Your task to perform on an android device: uninstall "Google Maps" Image 0: 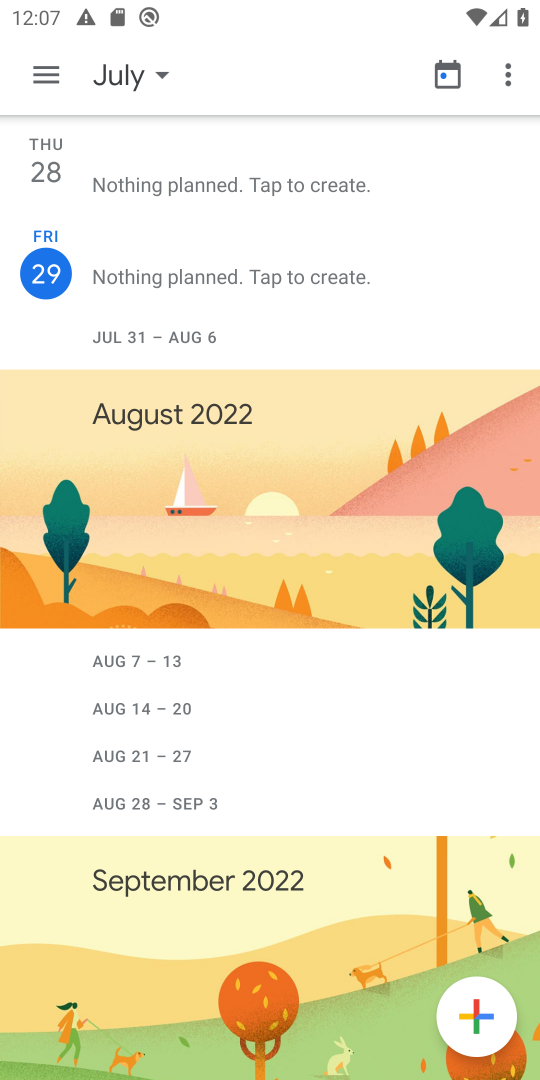
Step 0: press home button
Your task to perform on an android device: uninstall "Google Maps" Image 1: 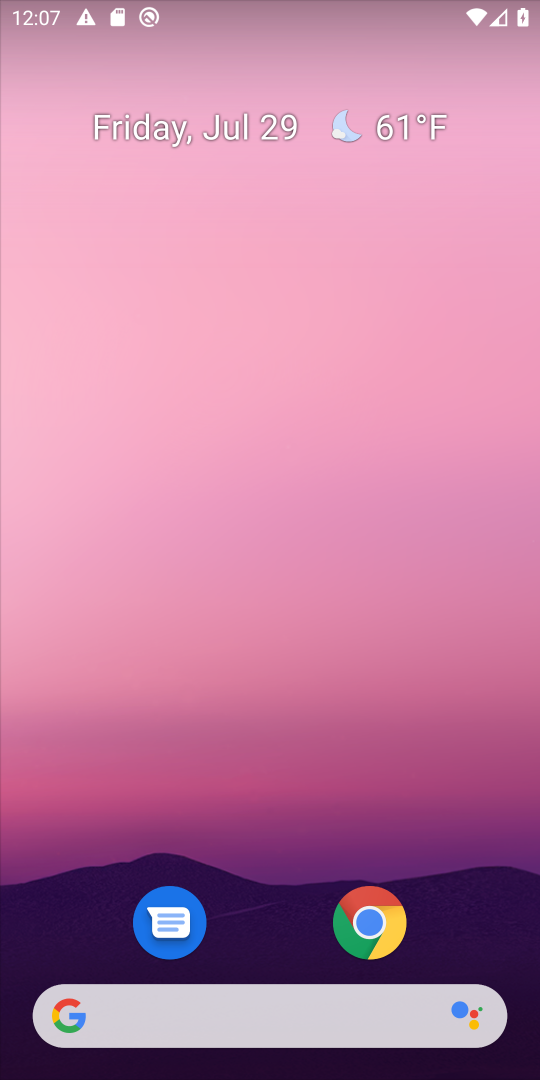
Step 1: drag from (473, 796) to (406, 56)
Your task to perform on an android device: uninstall "Google Maps" Image 2: 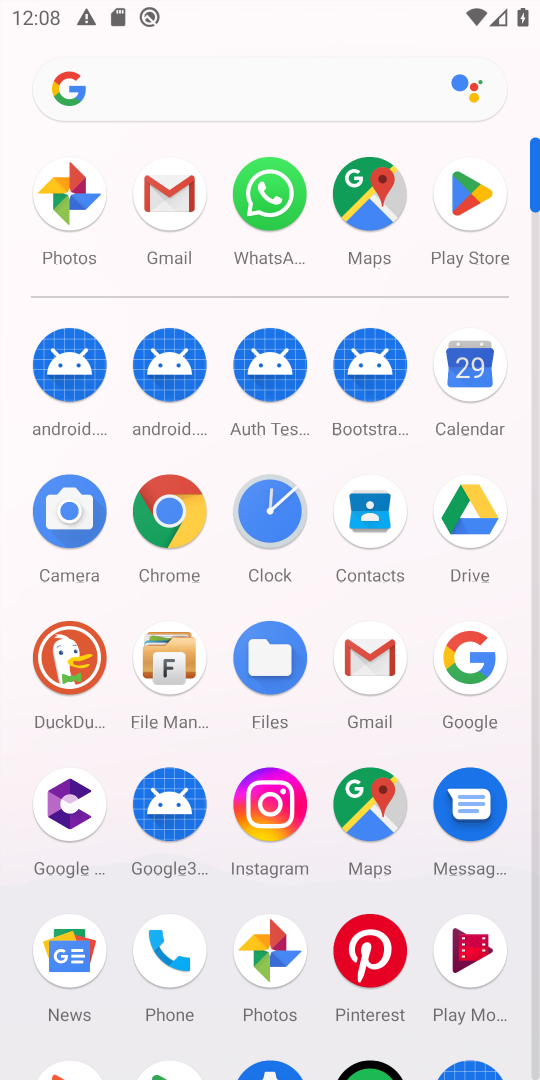
Step 2: click (456, 189)
Your task to perform on an android device: uninstall "Google Maps" Image 3: 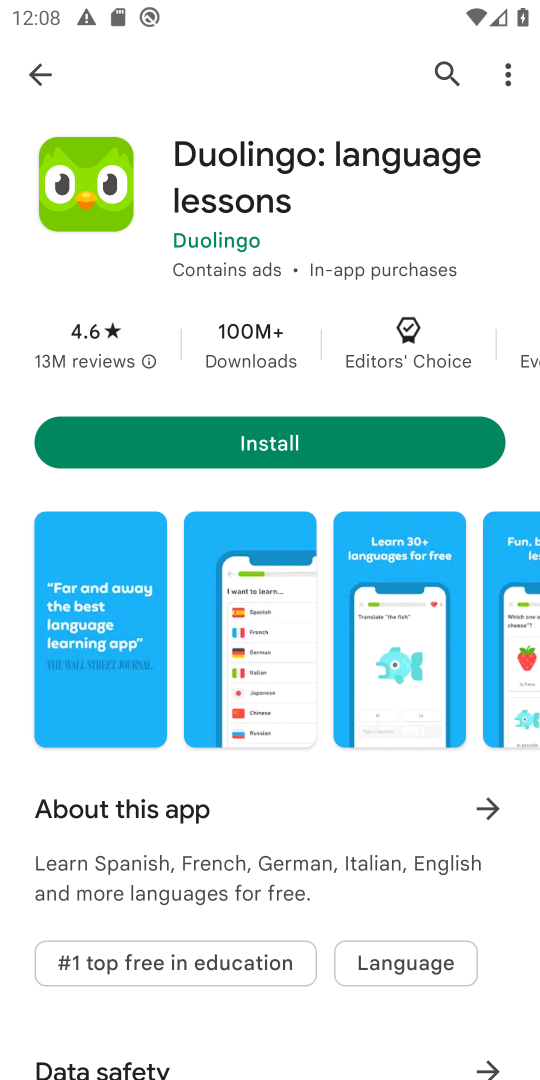
Step 3: click (433, 64)
Your task to perform on an android device: uninstall "Google Maps" Image 4: 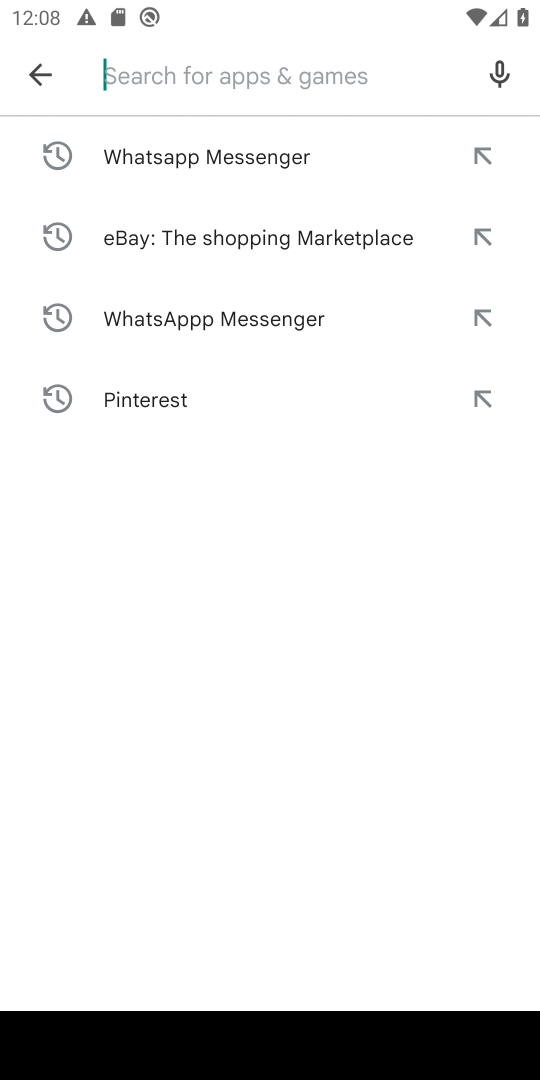
Step 4: type "Google Maps"
Your task to perform on an android device: uninstall "Google Maps" Image 5: 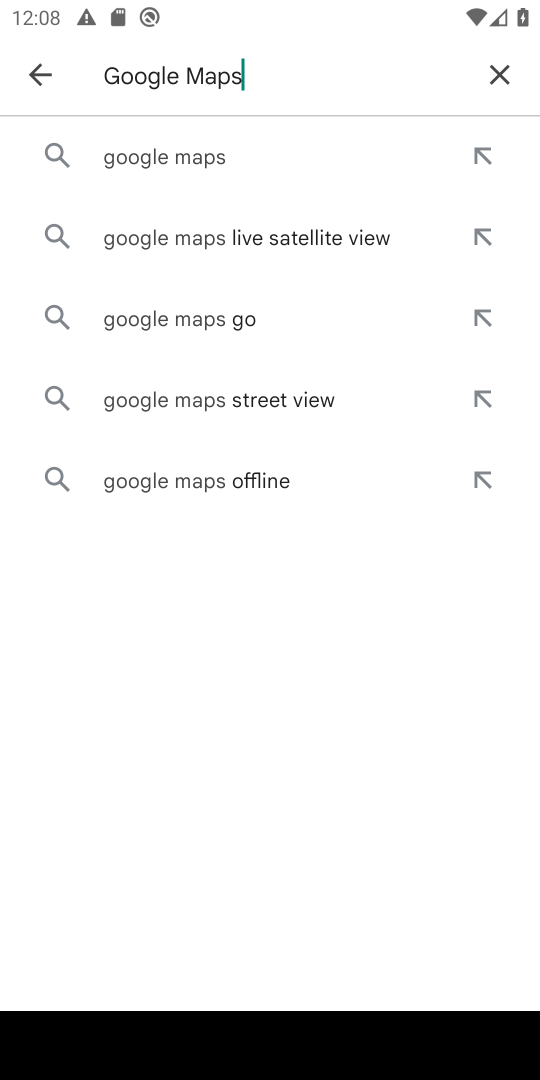
Step 5: press enter
Your task to perform on an android device: uninstall "Google Maps" Image 6: 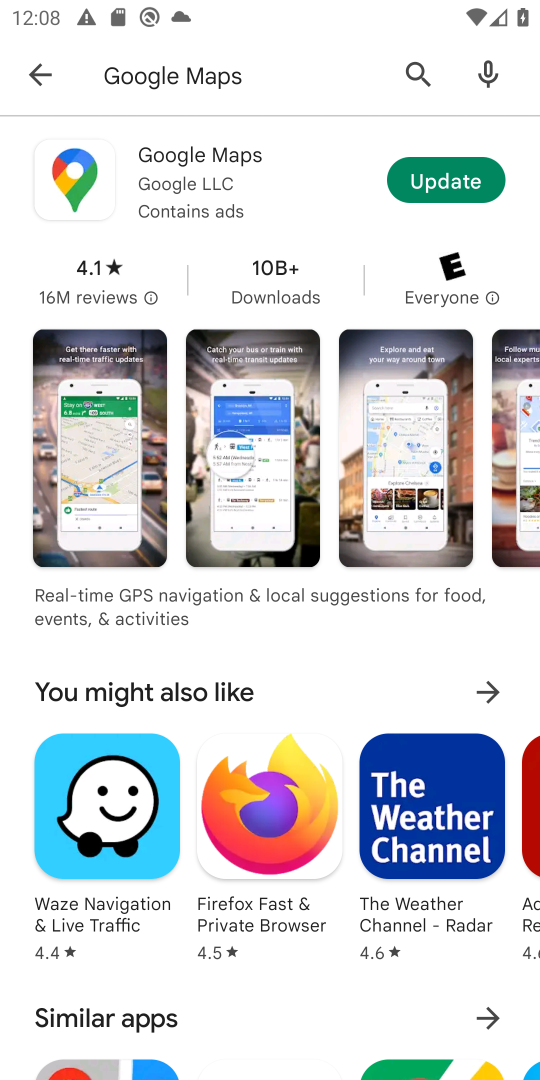
Step 6: click (182, 159)
Your task to perform on an android device: uninstall "Google Maps" Image 7: 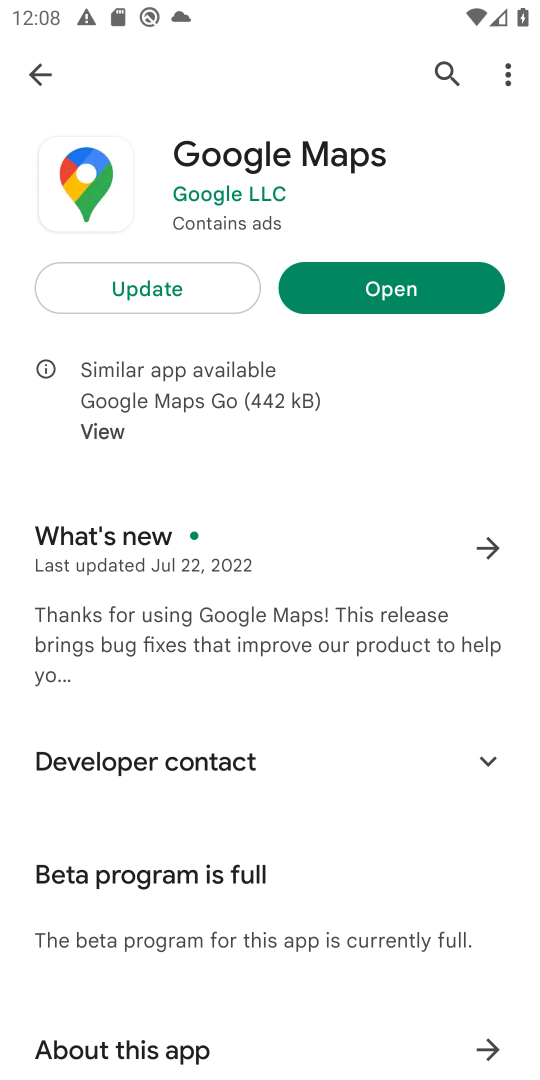
Step 7: task complete